Your task to perform on an android device: turn off improve location accuracy Image 0: 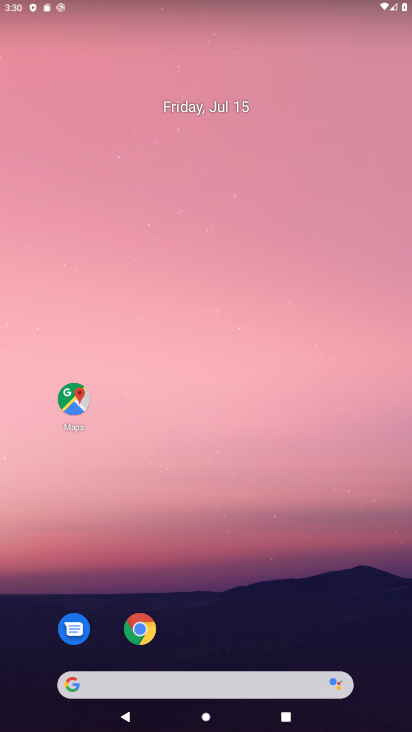
Step 0: drag from (306, 584) to (229, 58)
Your task to perform on an android device: turn off improve location accuracy Image 1: 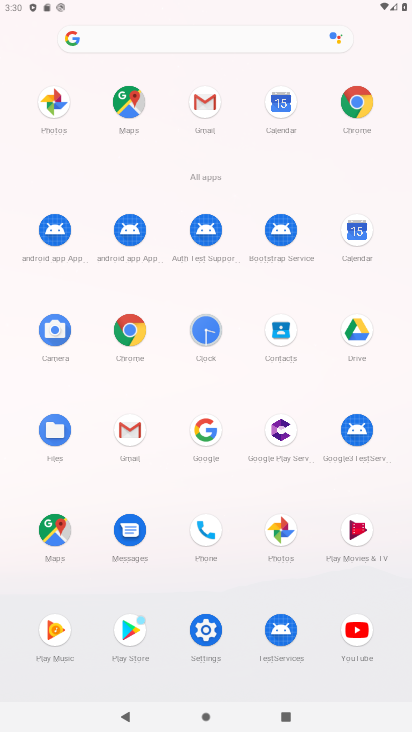
Step 1: click (192, 615)
Your task to perform on an android device: turn off improve location accuracy Image 2: 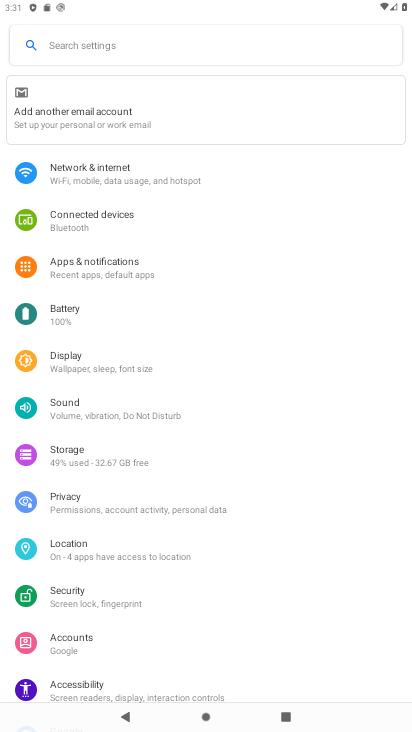
Step 2: click (110, 550)
Your task to perform on an android device: turn off improve location accuracy Image 3: 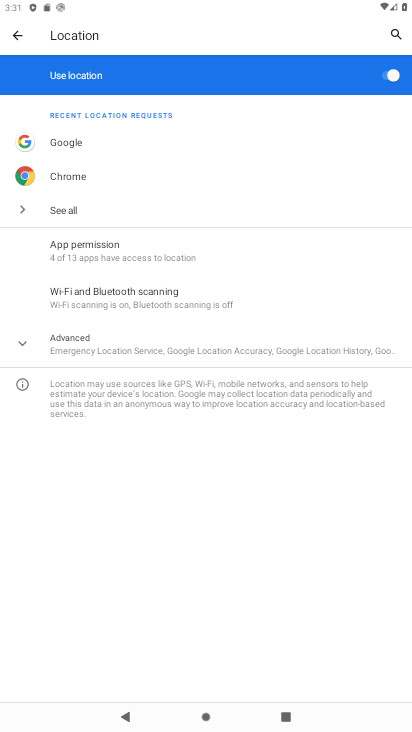
Step 3: click (78, 350)
Your task to perform on an android device: turn off improve location accuracy Image 4: 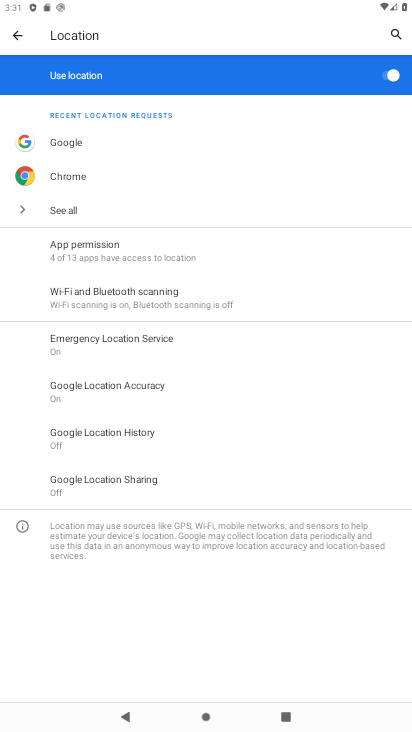
Step 4: click (140, 388)
Your task to perform on an android device: turn off improve location accuracy Image 5: 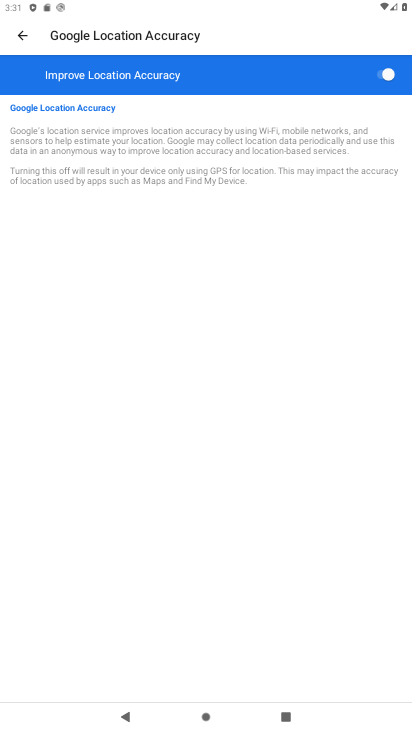
Step 5: click (338, 73)
Your task to perform on an android device: turn off improve location accuracy Image 6: 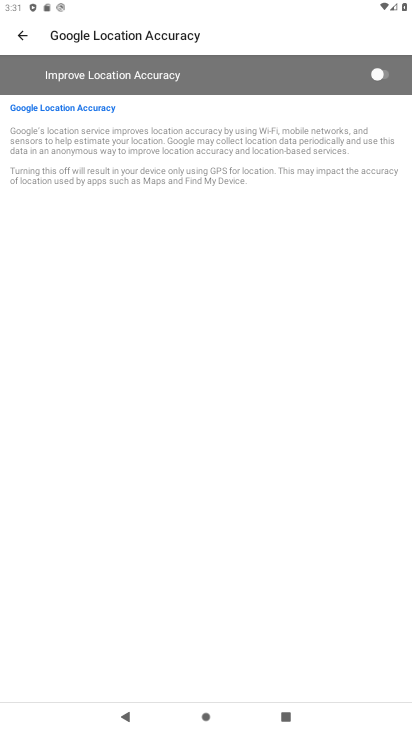
Step 6: task complete